Your task to perform on an android device: toggle translation in the chrome app Image 0: 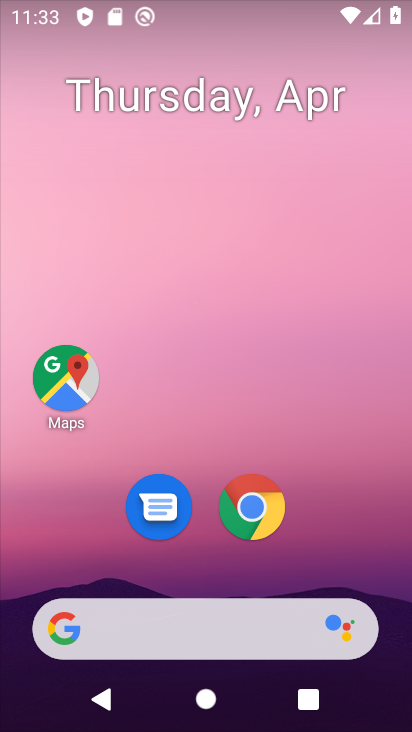
Step 0: click (240, 507)
Your task to perform on an android device: toggle translation in the chrome app Image 1: 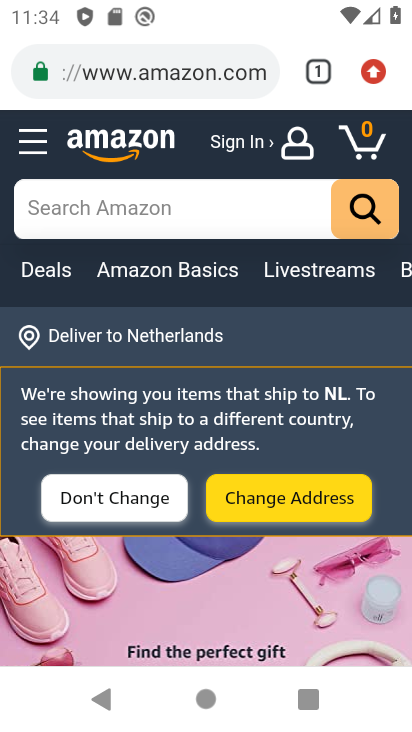
Step 1: drag from (374, 64) to (161, 493)
Your task to perform on an android device: toggle translation in the chrome app Image 2: 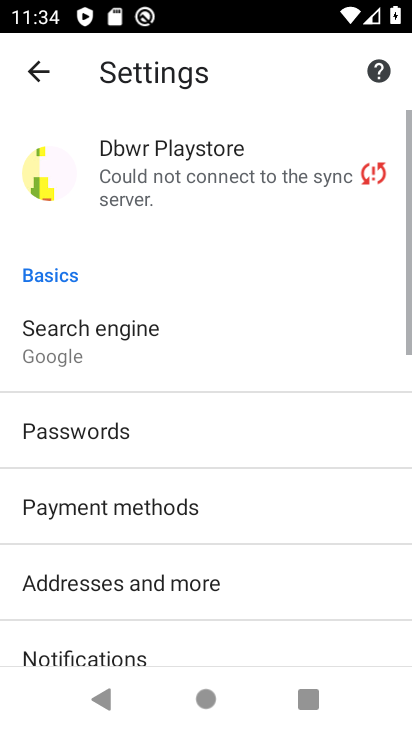
Step 2: drag from (166, 641) to (147, 285)
Your task to perform on an android device: toggle translation in the chrome app Image 3: 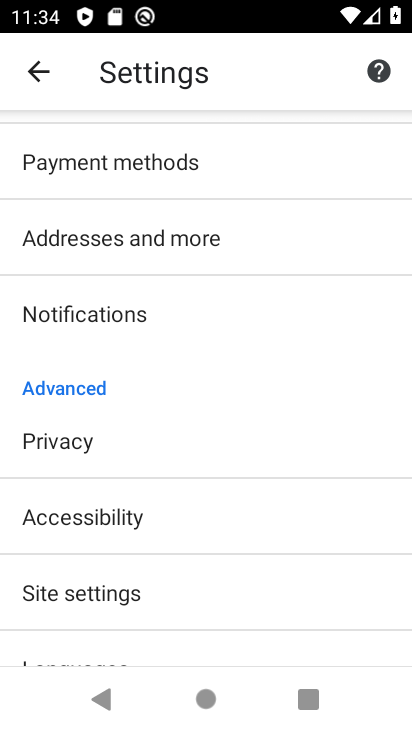
Step 3: drag from (176, 642) to (163, 296)
Your task to perform on an android device: toggle translation in the chrome app Image 4: 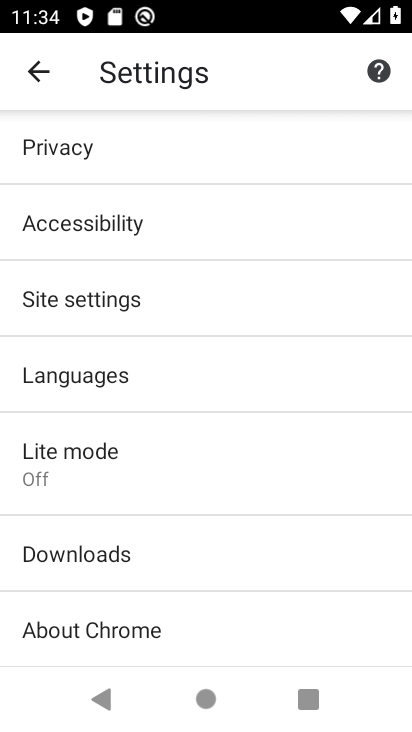
Step 4: click (99, 371)
Your task to perform on an android device: toggle translation in the chrome app Image 5: 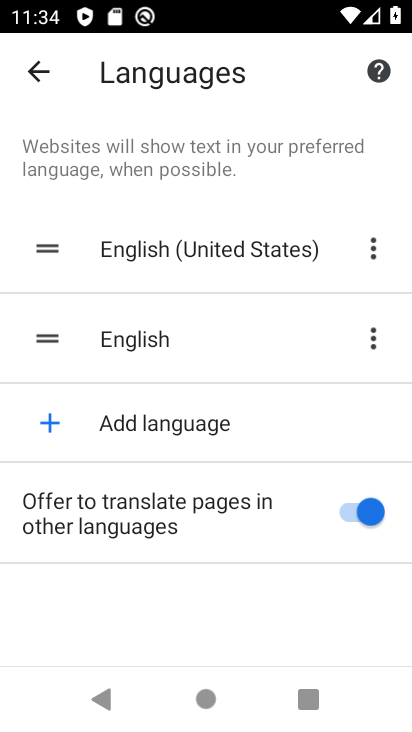
Step 5: click (348, 508)
Your task to perform on an android device: toggle translation in the chrome app Image 6: 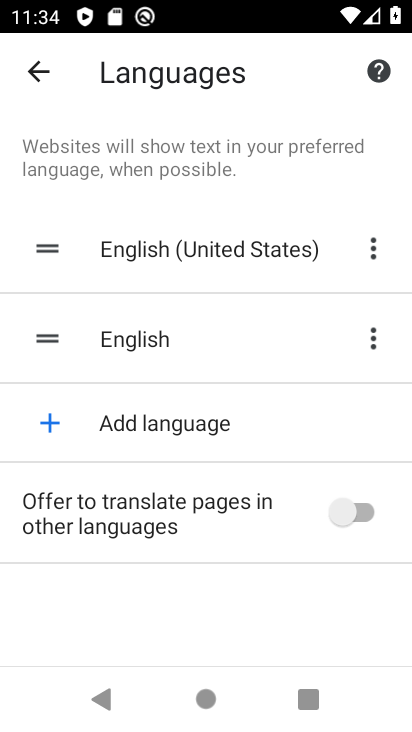
Step 6: task complete